Your task to perform on an android device: Search for acer predator on bestbuy, select the first entry, add it to the cart, then select checkout. Image 0: 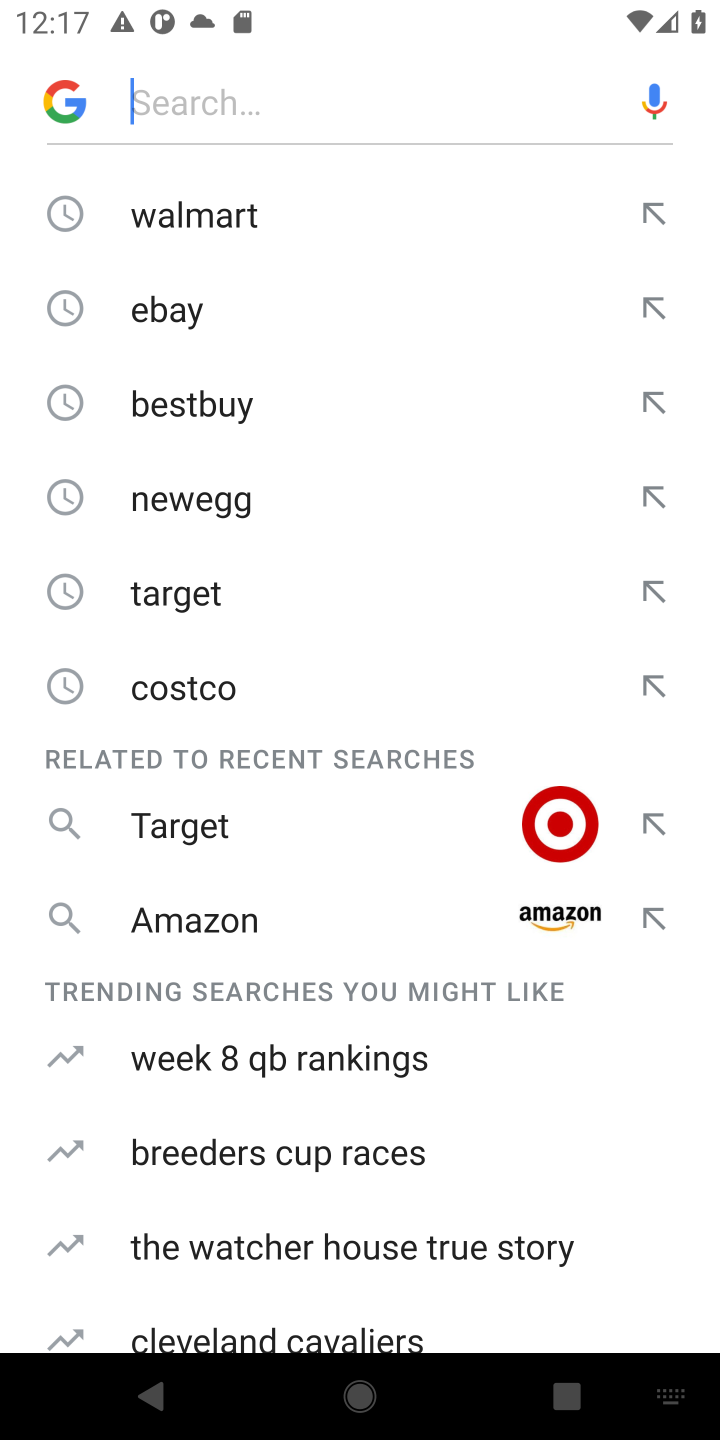
Step 0: type "bestbuy"
Your task to perform on an android device: Search for acer predator on bestbuy, select the first entry, add it to the cart, then select checkout. Image 1: 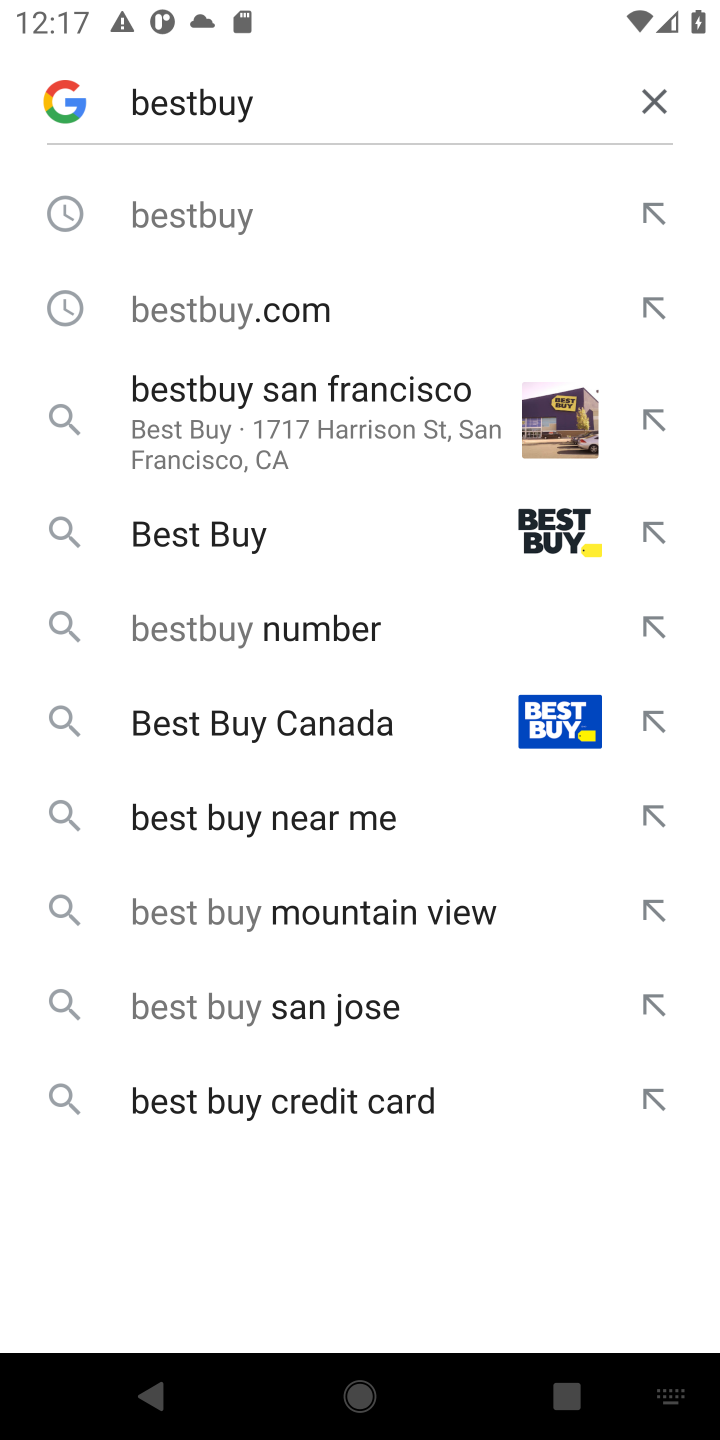
Step 1: press enter
Your task to perform on an android device: Search for acer predator on bestbuy, select the first entry, add it to the cart, then select checkout. Image 2: 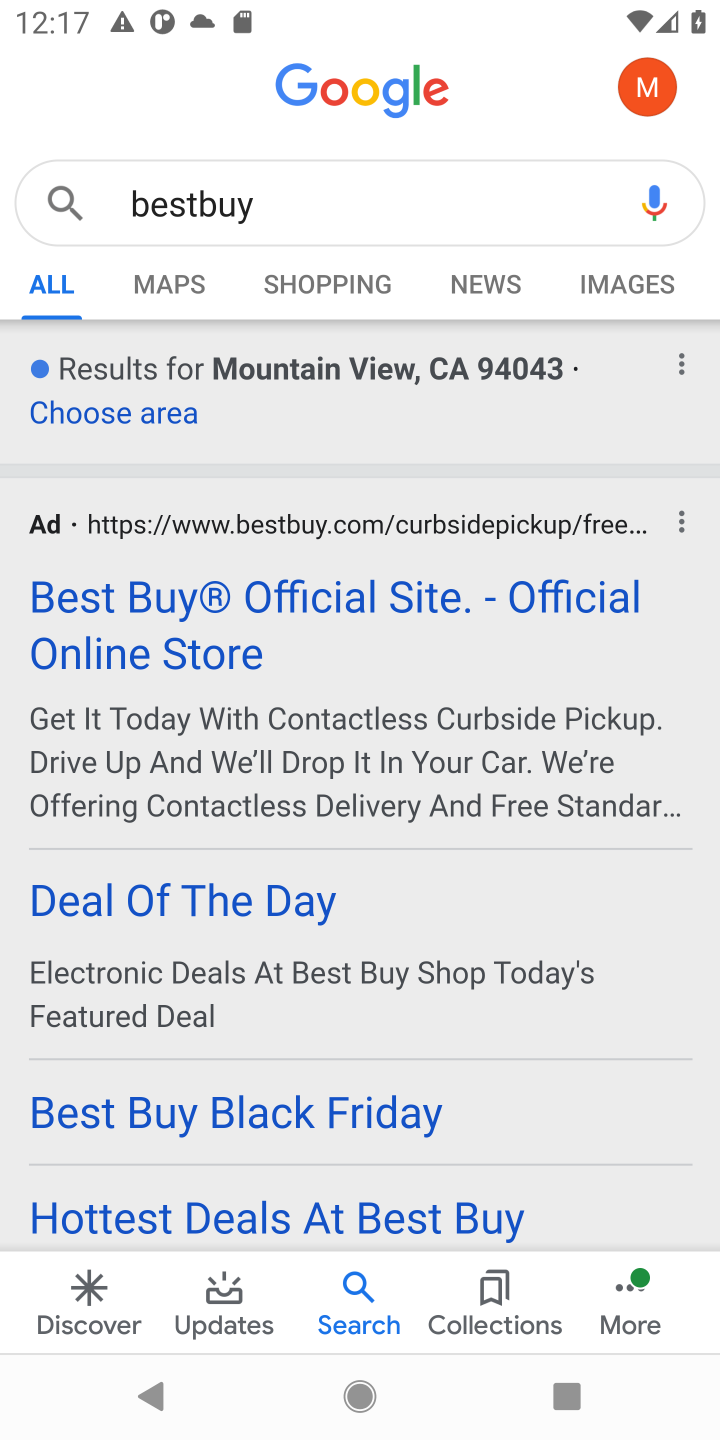
Step 2: click (225, 603)
Your task to perform on an android device: Search for acer predator on bestbuy, select the first entry, add it to the cart, then select checkout. Image 3: 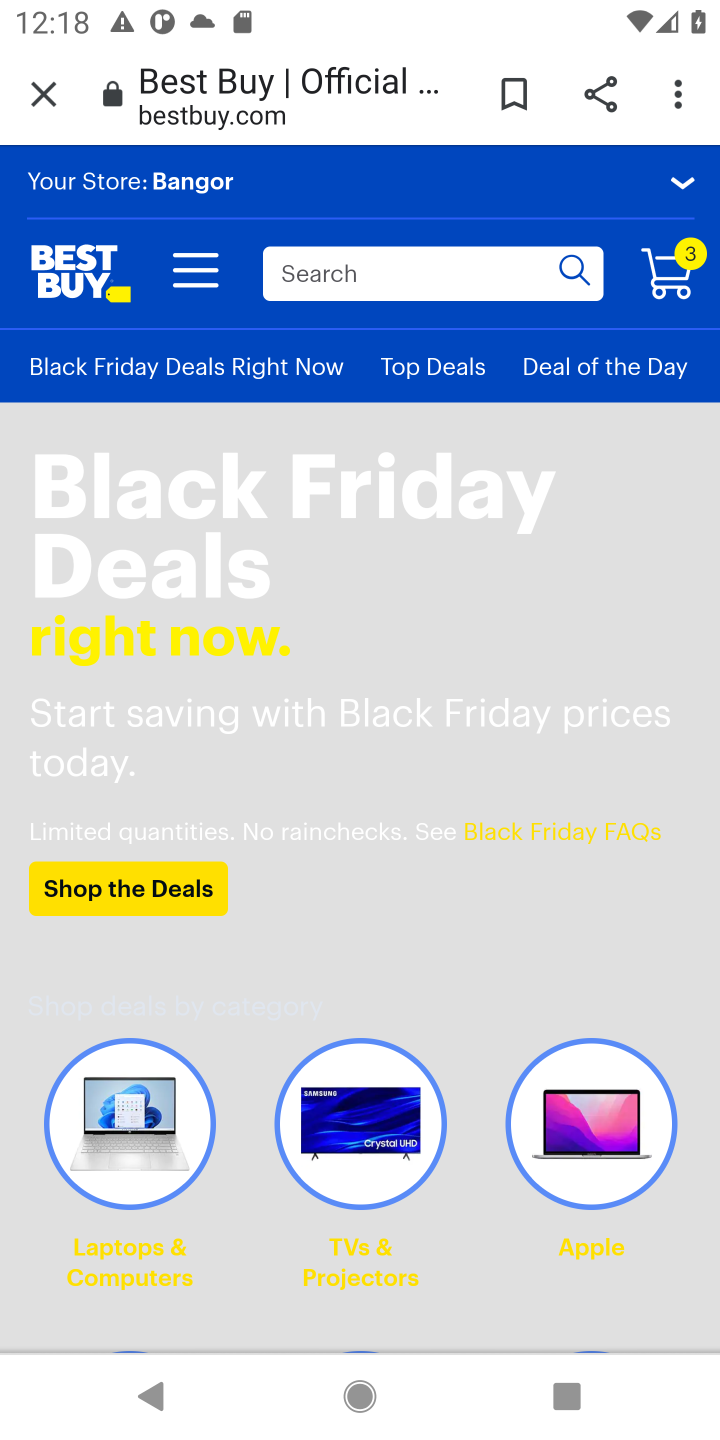
Step 3: click (298, 268)
Your task to perform on an android device: Search for acer predator on bestbuy, select the first entry, add it to the cart, then select checkout. Image 4: 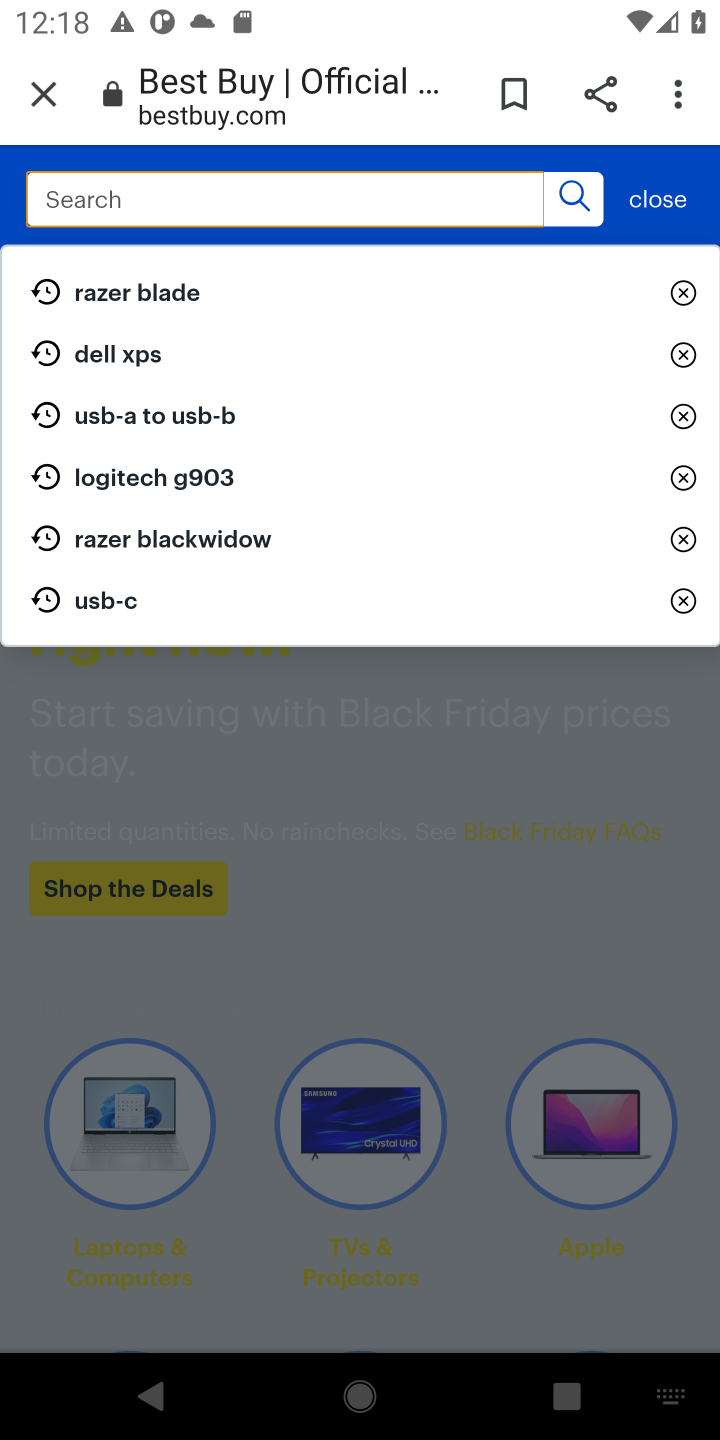
Step 4: press enter
Your task to perform on an android device: Search for acer predator on bestbuy, select the first entry, add it to the cart, then select checkout. Image 5: 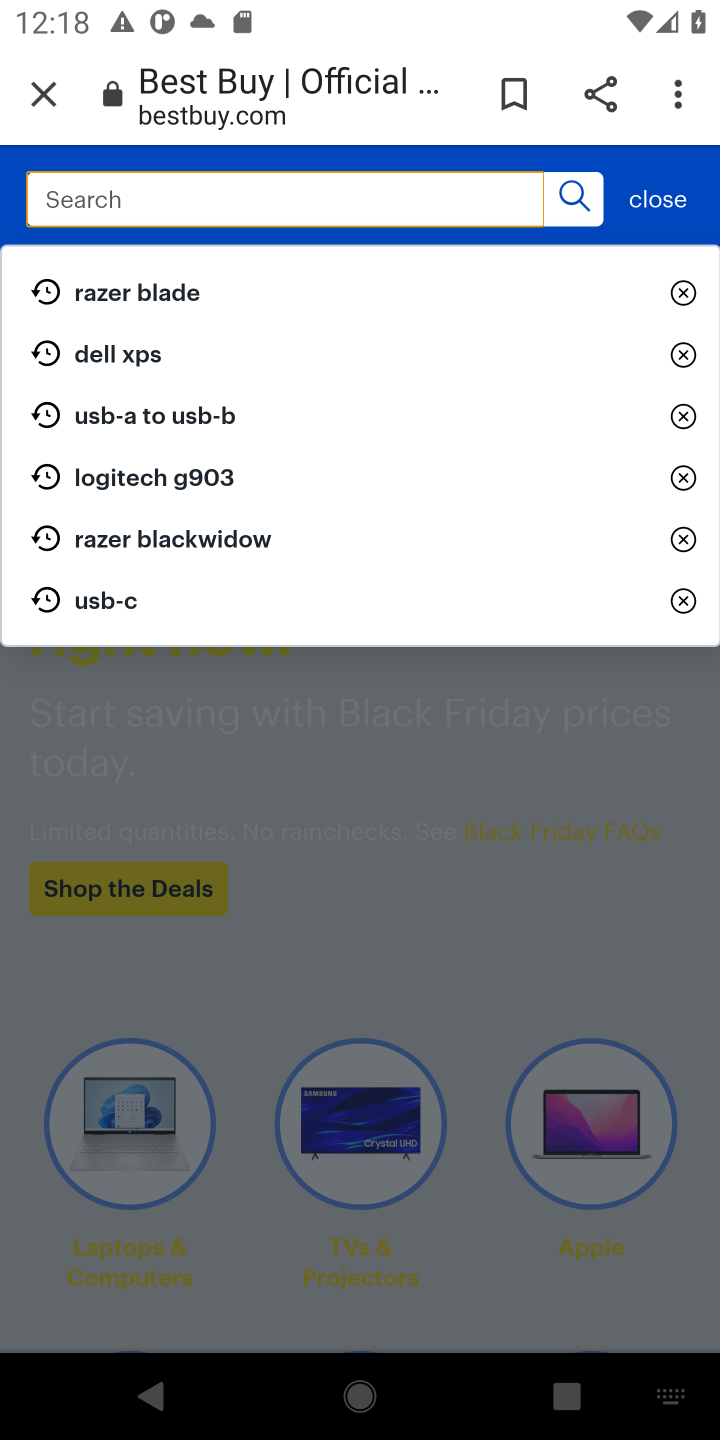
Step 5: type "acer predator "
Your task to perform on an android device: Search for acer predator on bestbuy, select the first entry, add it to the cart, then select checkout. Image 6: 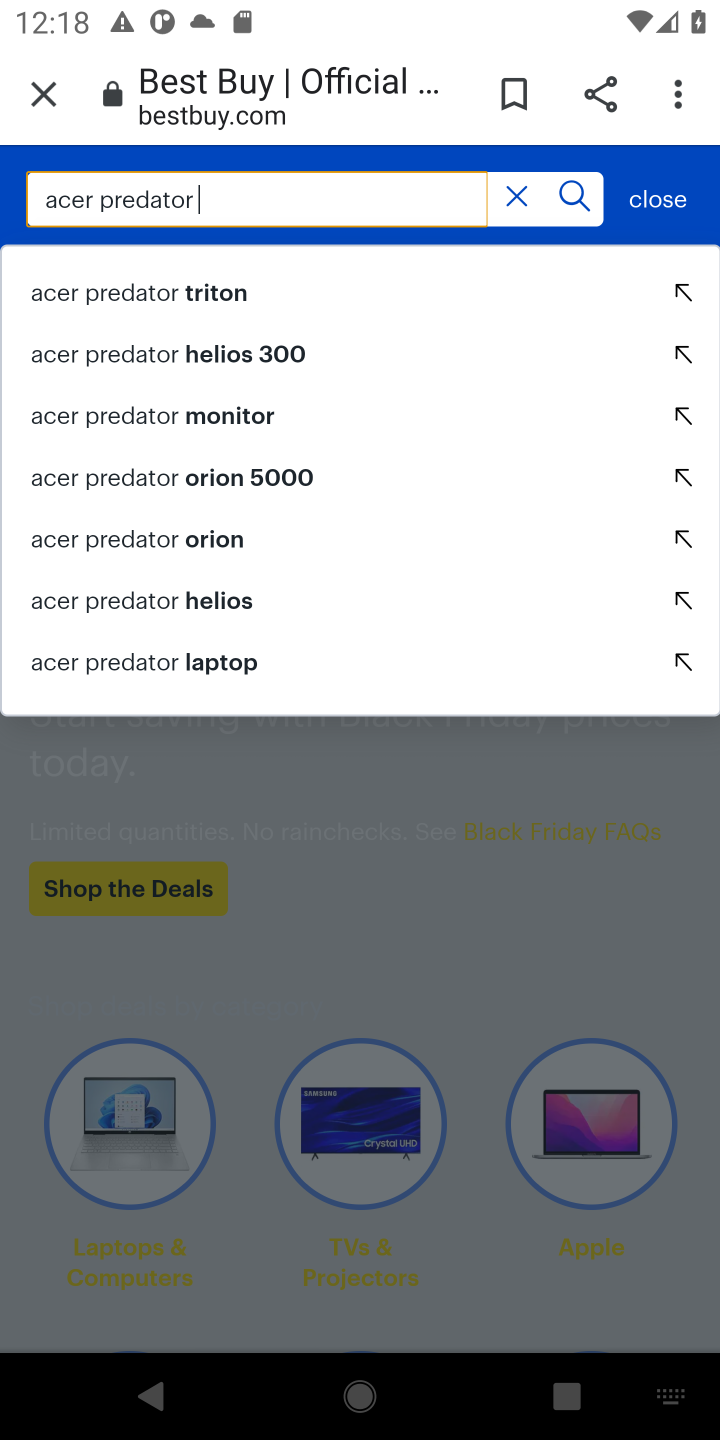
Step 6: press enter
Your task to perform on an android device: Search for acer predator on bestbuy, select the first entry, add it to the cart, then select checkout. Image 7: 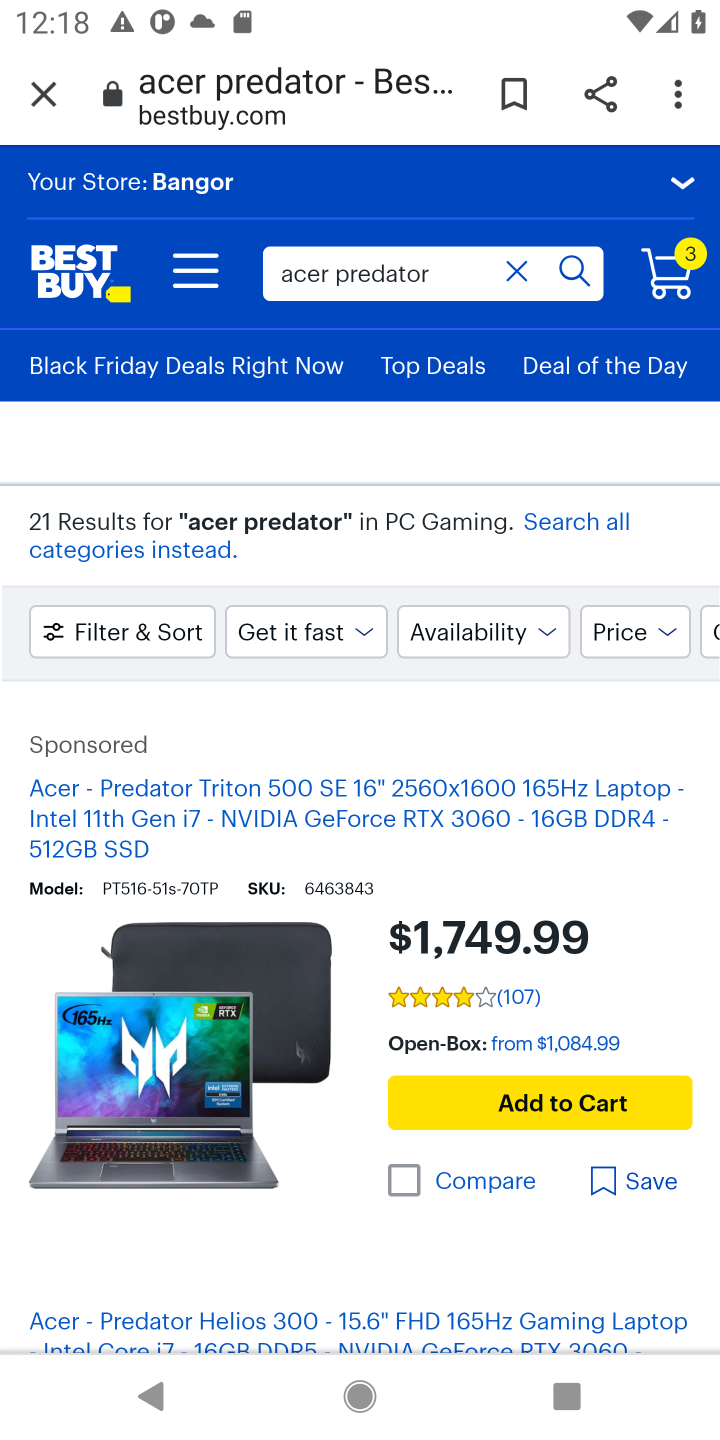
Step 7: click (538, 1095)
Your task to perform on an android device: Search for acer predator on bestbuy, select the first entry, add it to the cart, then select checkout. Image 8: 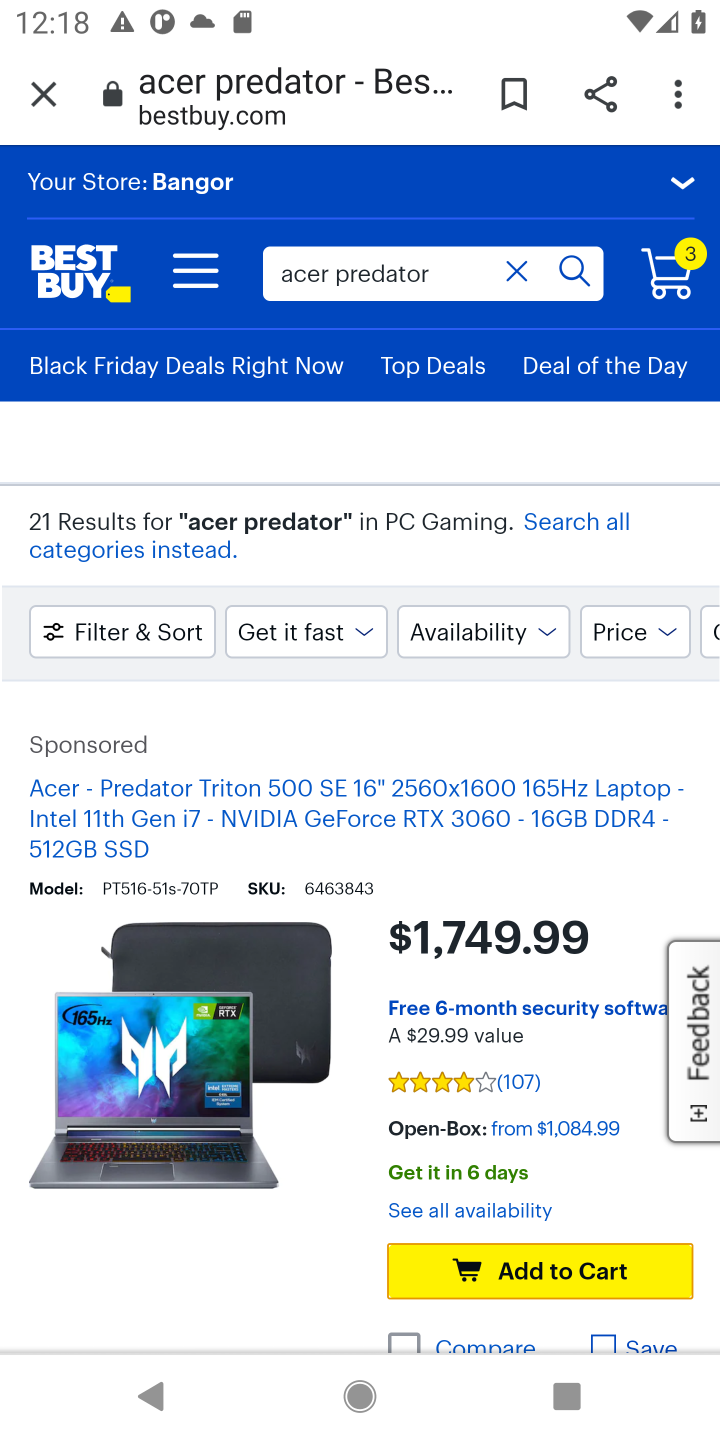
Step 8: click (494, 1272)
Your task to perform on an android device: Search for acer predator on bestbuy, select the first entry, add it to the cart, then select checkout. Image 9: 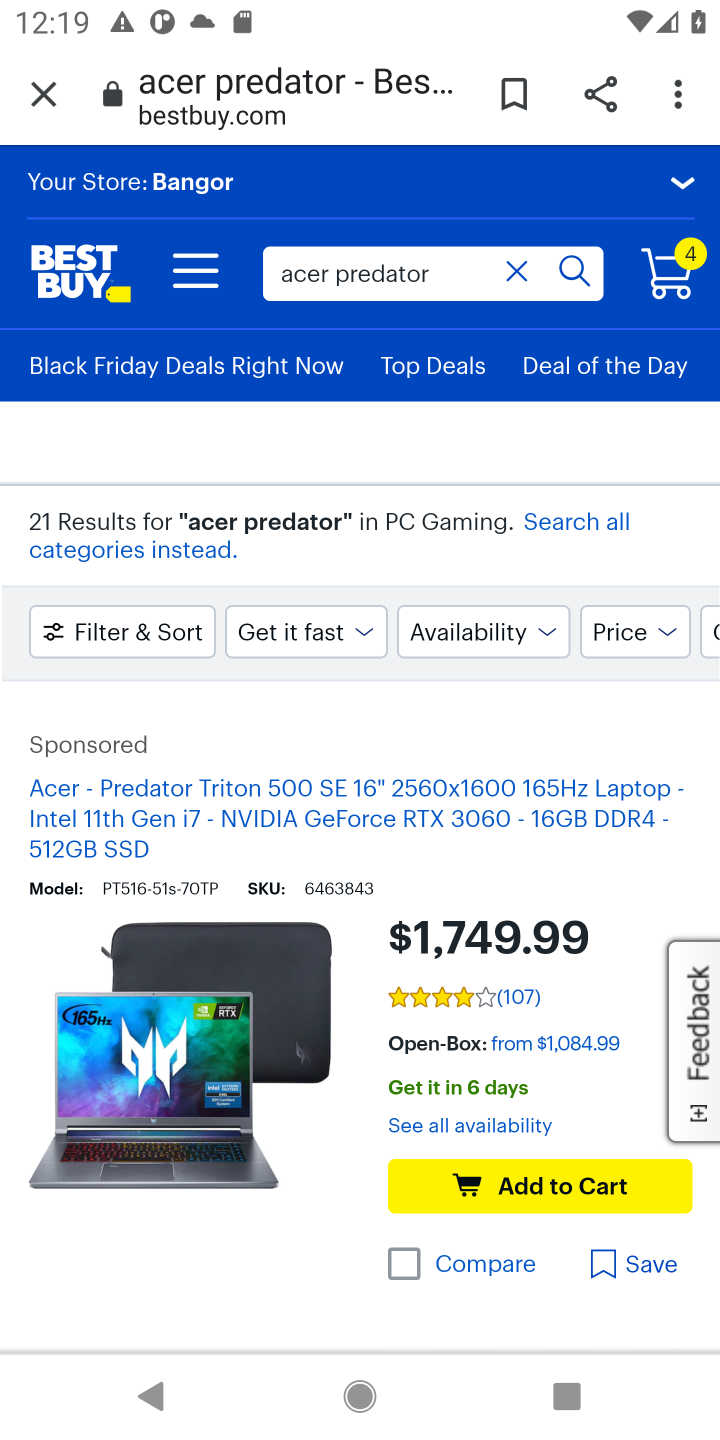
Step 9: click (663, 276)
Your task to perform on an android device: Search for acer predator on bestbuy, select the first entry, add it to the cart, then select checkout. Image 10: 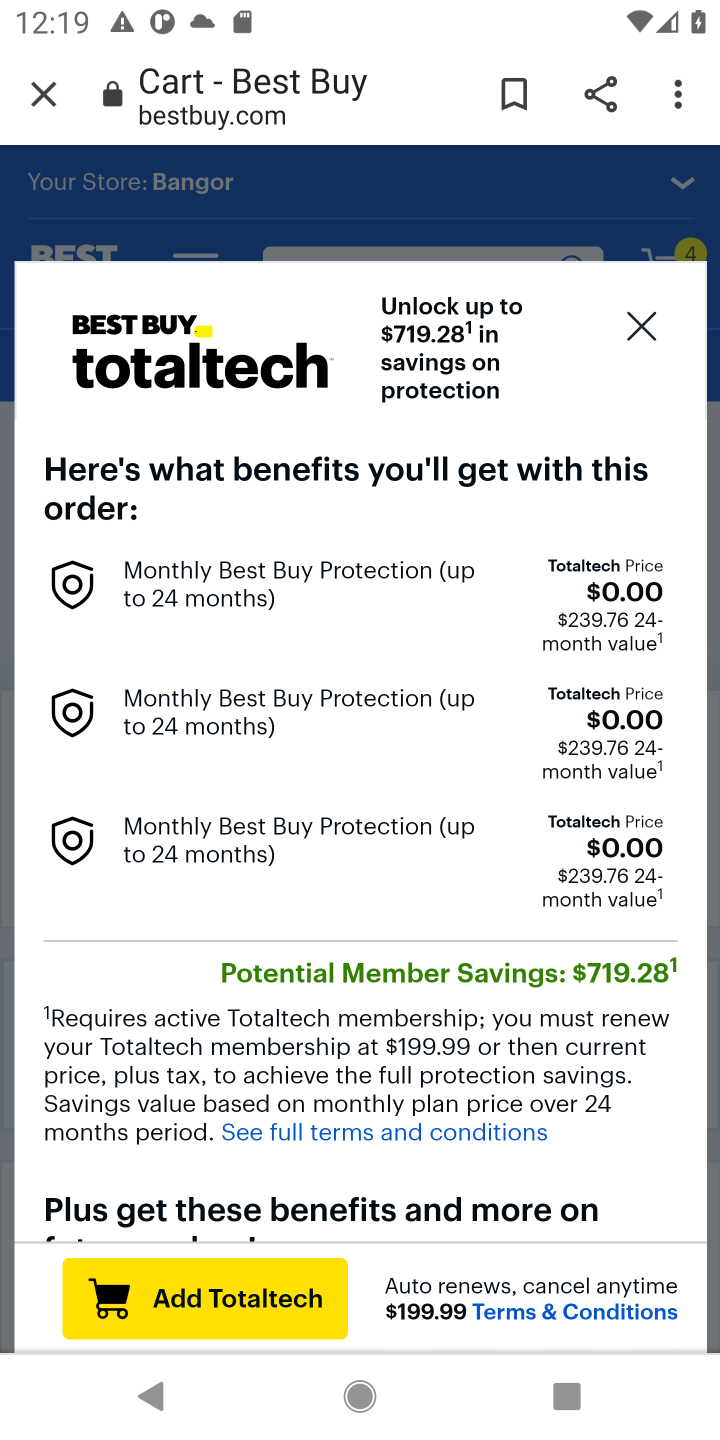
Step 10: click (636, 314)
Your task to perform on an android device: Search for acer predator on bestbuy, select the first entry, add it to the cart, then select checkout. Image 11: 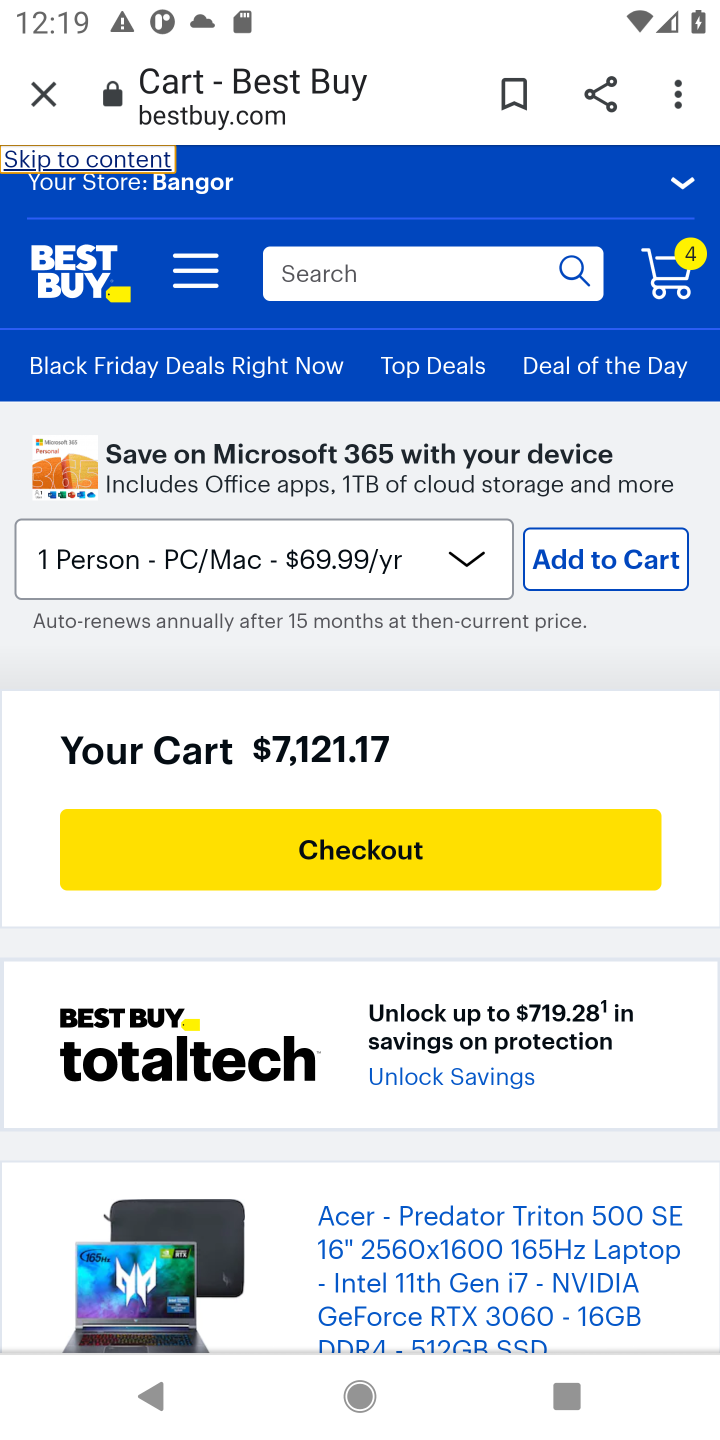
Step 11: click (359, 849)
Your task to perform on an android device: Search for acer predator on bestbuy, select the first entry, add it to the cart, then select checkout. Image 12: 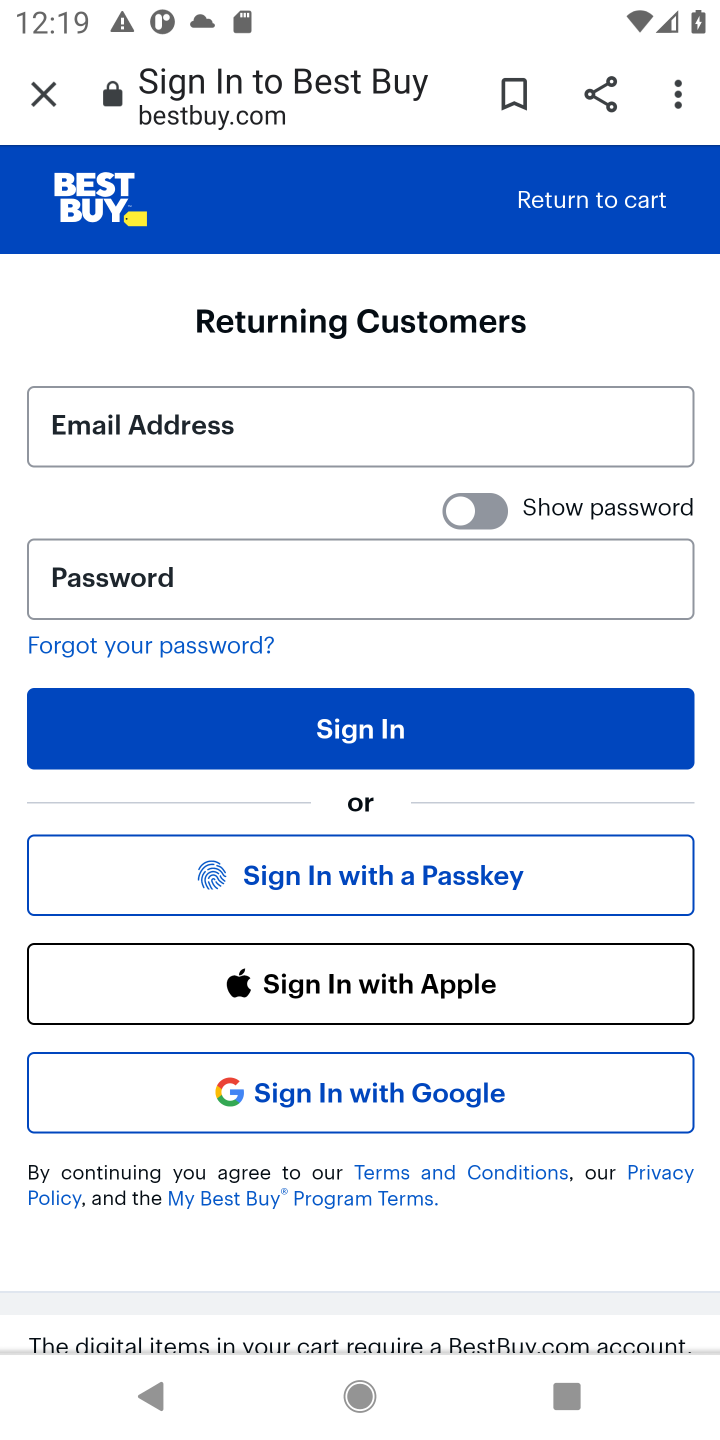
Step 12: task complete